Your task to perform on an android device: change text size in settings app Image 0: 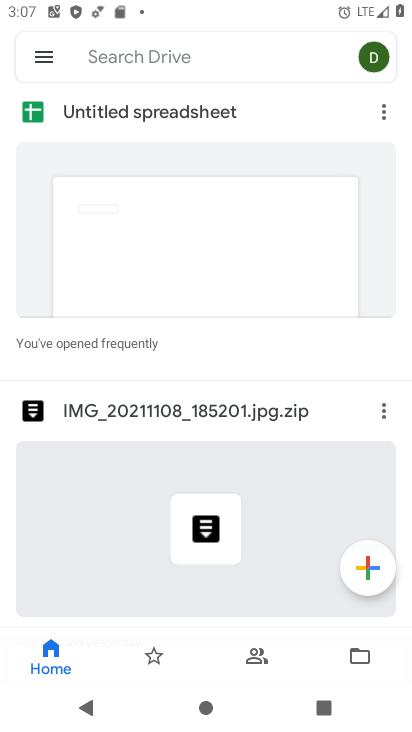
Step 0: press home button
Your task to perform on an android device: change text size in settings app Image 1: 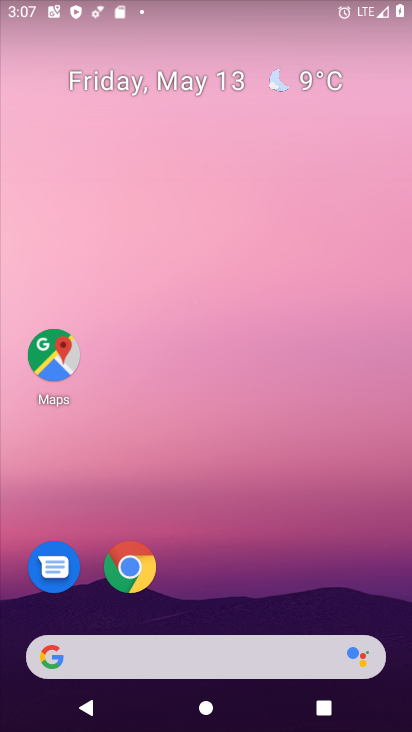
Step 1: drag from (198, 549) to (385, 8)
Your task to perform on an android device: change text size in settings app Image 2: 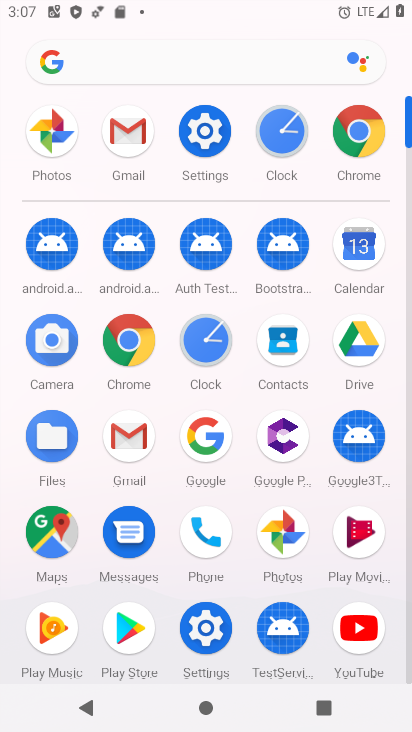
Step 2: click (211, 637)
Your task to perform on an android device: change text size in settings app Image 3: 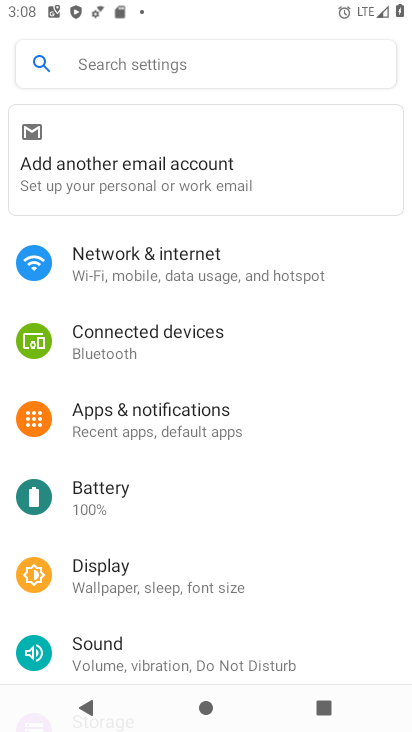
Step 3: click (126, 580)
Your task to perform on an android device: change text size in settings app Image 4: 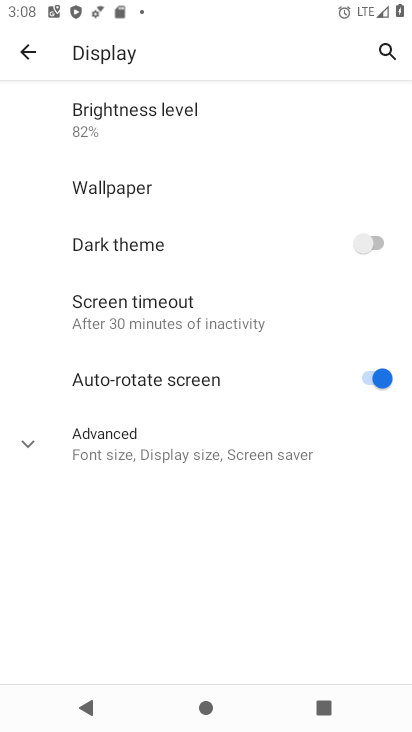
Step 4: click (146, 444)
Your task to perform on an android device: change text size in settings app Image 5: 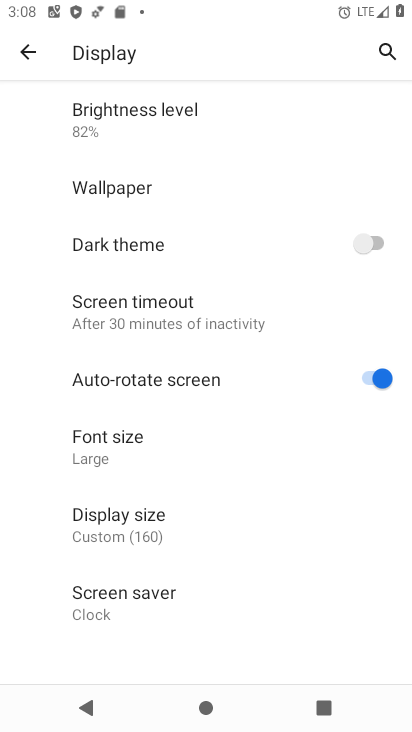
Step 5: click (139, 451)
Your task to perform on an android device: change text size in settings app Image 6: 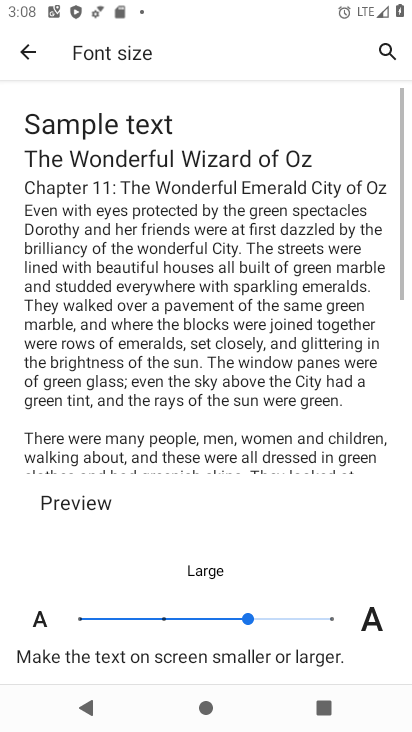
Step 6: click (148, 619)
Your task to perform on an android device: change text size in settings app Image 7: 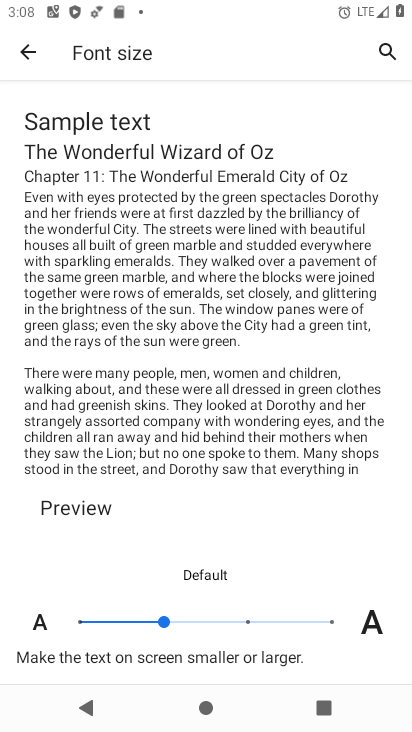
Step 7: task complete